Your task to perform on an android device: set the stopwatch Image 0: 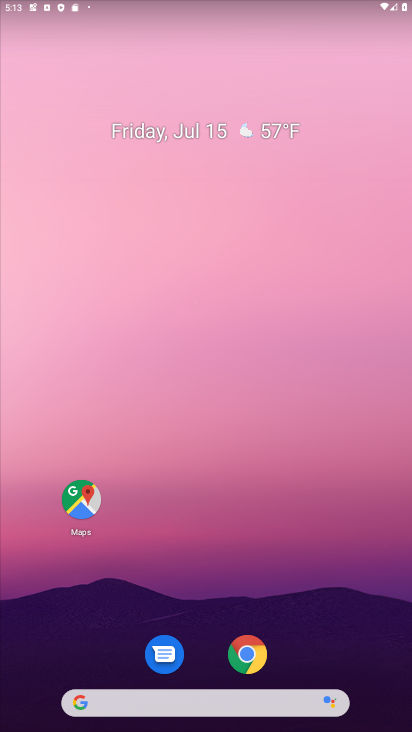
Step 0: drag from (202, 657) to (180, 183)
Your task to perform on an android device: set the stopwatch Image 1: 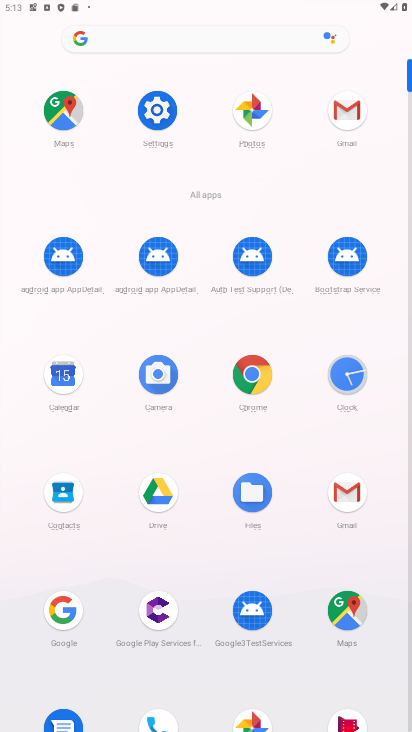
Step 1: click (363, 386)
Your task to perform on an android device: set the stopwatch Image 2: 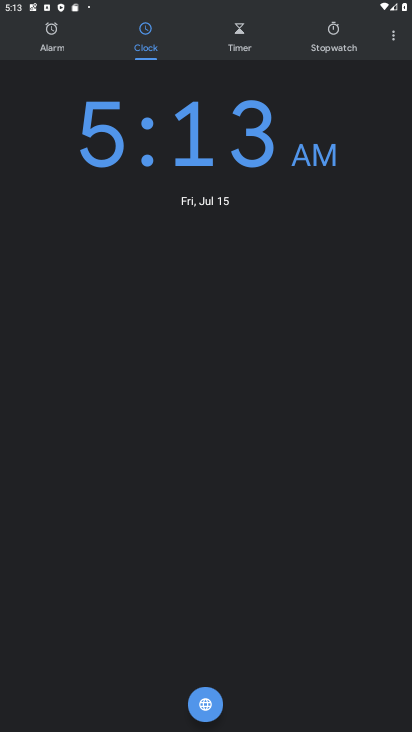
Step 2: click (333, 30)
Your task to perform on an android device: set the stopwatch Image 3: 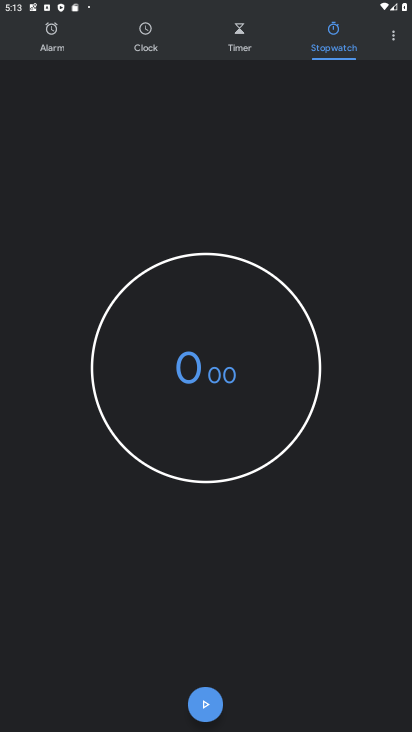
Step 3: task complete